Your task to perform on an android device: Search for vegetarian restaurants on Maps Image 0: 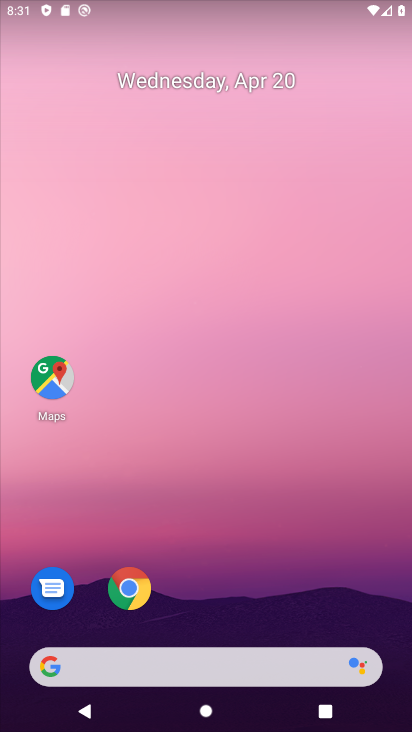
Step 0: press home button
Your task to perform on an android device: Search for vegetarian restaurants on Maps Image 1: 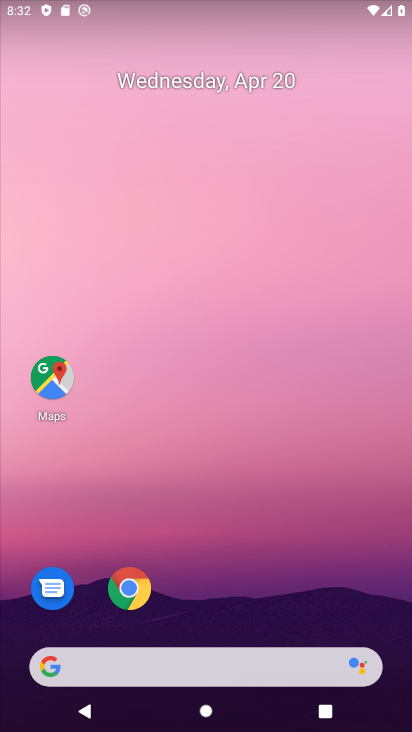
Step 1: click (48, 378)
Your task to perform on an android device: Search for vegetarian restaurants on Maps Image 2: 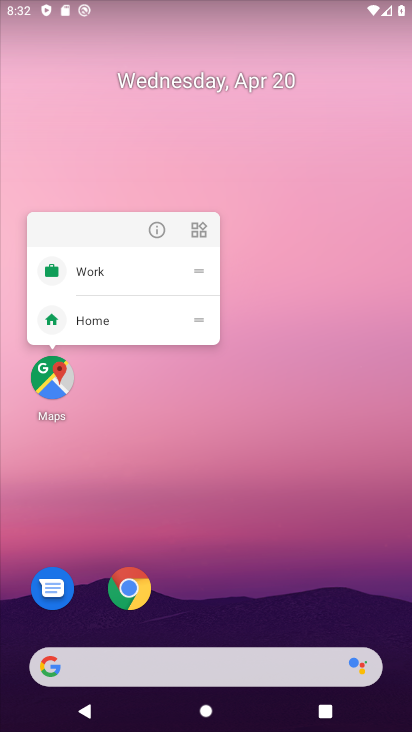
Step 2: click (55, 378)
Your task to perform on an android device: Search for vegetarian restaurants on Maps Image 3: 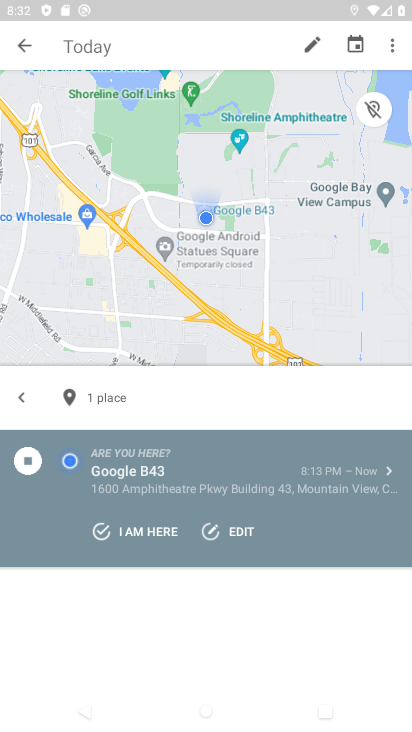
Step 3: click (21, 46)
Your task to perform on an android device: Search for vegetarian restaurants on Maps Image 4: 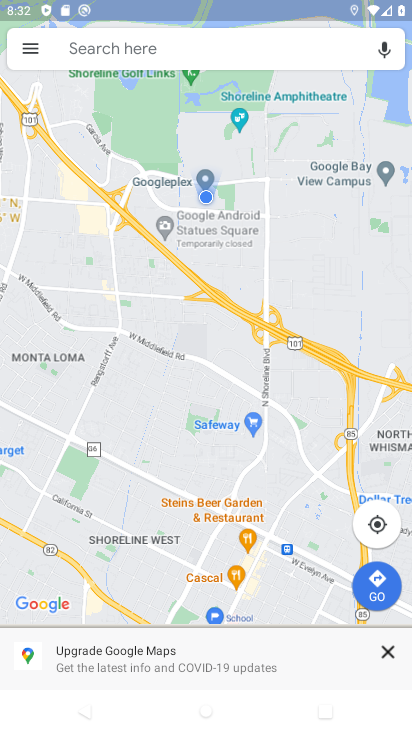
Step 4: click (97, 47)
Your task to perform on an android device: Search for vegetarian restaurants on Maps Image 5: 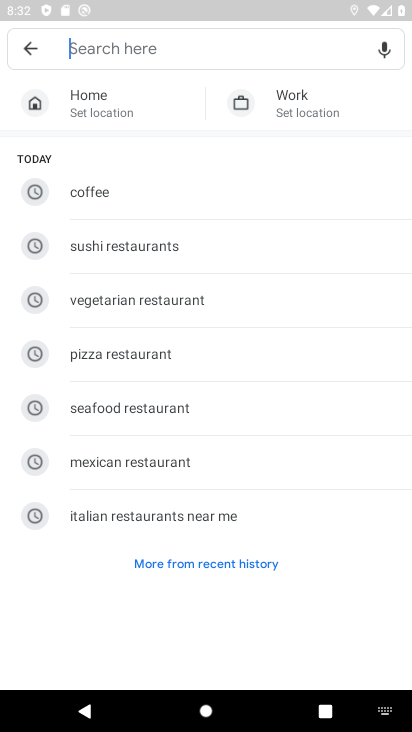
Step 5: click (110, 295)
Your task to perform on an android device: Search for vegetarian restaurants on Maps Image 6: 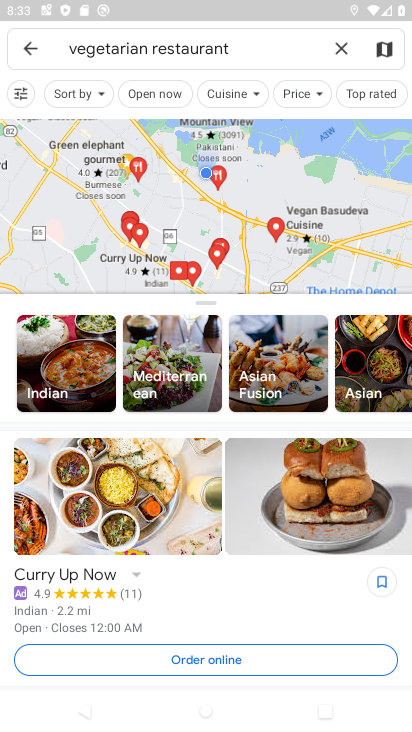
Step 6: task complete